Your task to perform on an android device: Open the web browser Image 0: 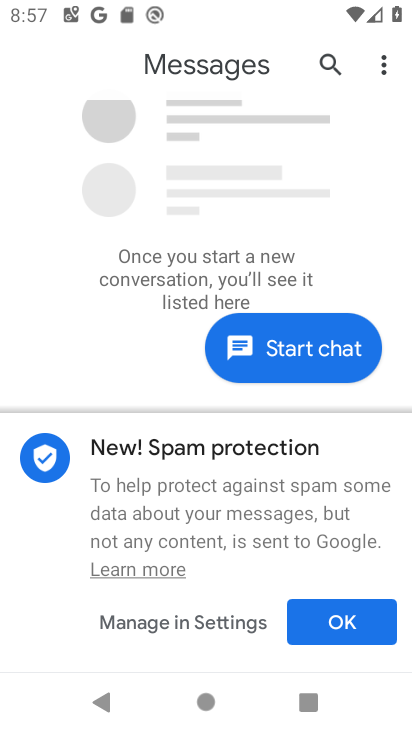
Step 0: press home button
Your task to perform on an android device: Open the web browser Image 1: 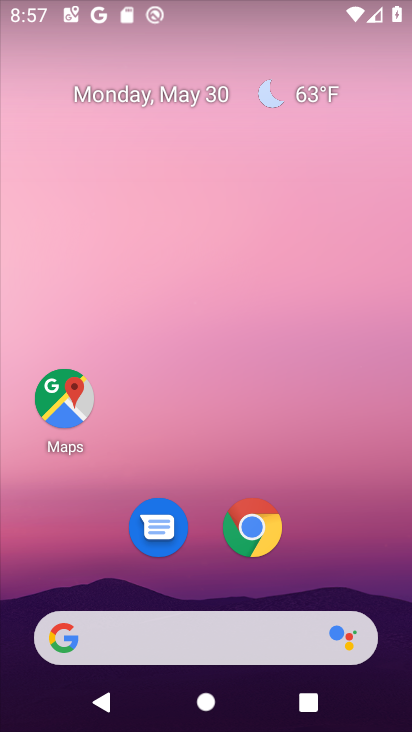
Step 1: click (253, 520)
Your task to perform on an android device: Open the web browser Image 2: 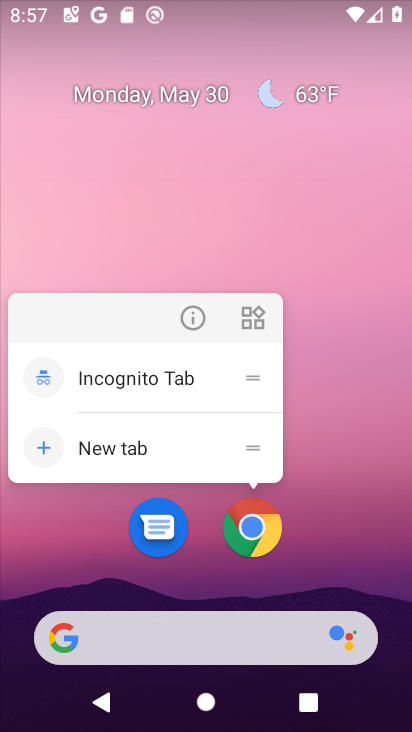
Step 2: click (254, 519)
Your task to perform on an android device: Open the web browser Image 3: 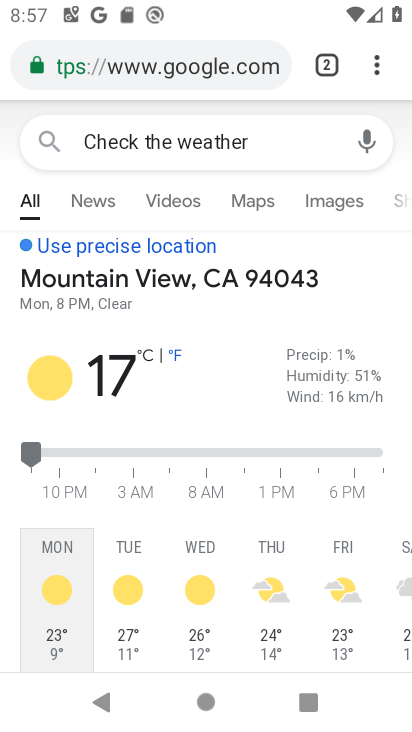
Step 3: task complete